Your task to perform on an android device: check battery use Image 0: 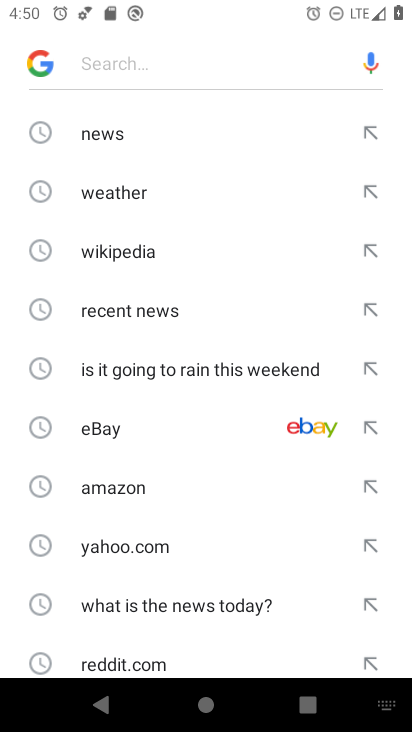
Step 0: press home button
Your task to perform on an android device: check battery use Image 1: 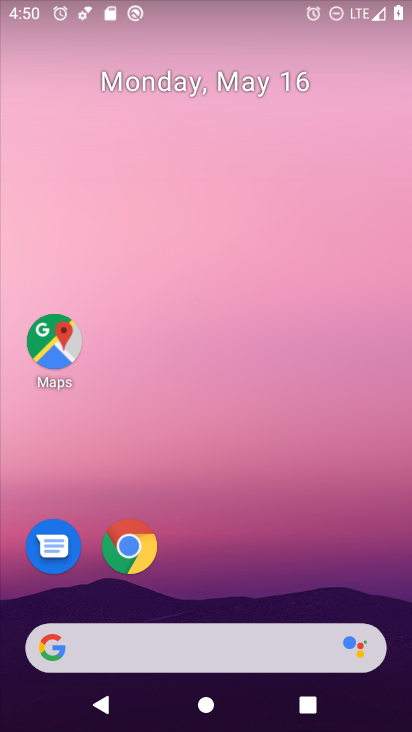
Step 1: drag from (362, 515) to (354, 151)
Your task to perform on an android device: check battery use Image 2: 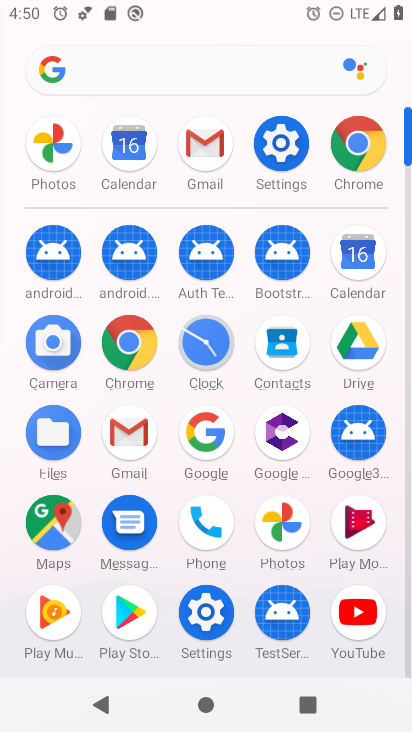
Step 2: click (289, 160)
Your task to perform on an android device: check battery use Image 3: 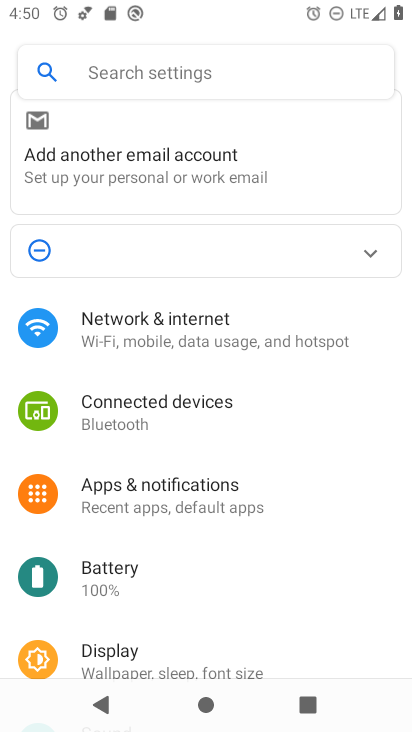
Step 3: drag from (323, 523) to (329, 358)
Your task to perform on an android device: check battery use Image 4: 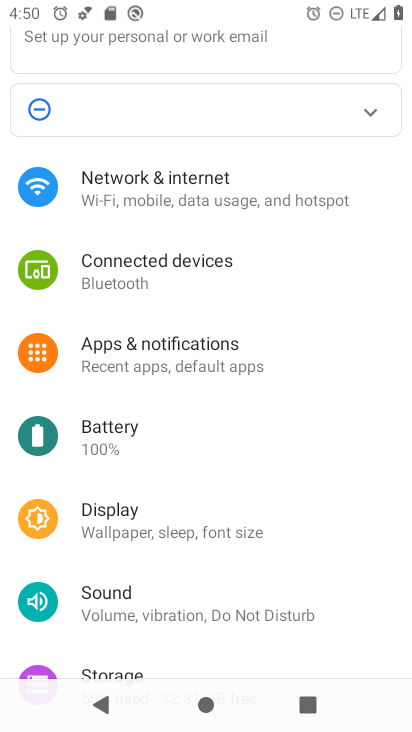
Step 4: drag from (341, 546) to (364, 354)
Your task to perform on an android device: check battery use Image 5: 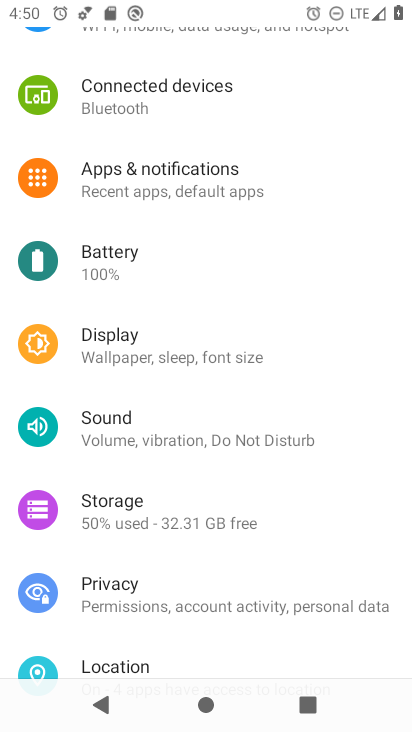
Step 5: drag from (360, 550) to (366, 365)
Your task to perform on an android device: check battery use Image 6: 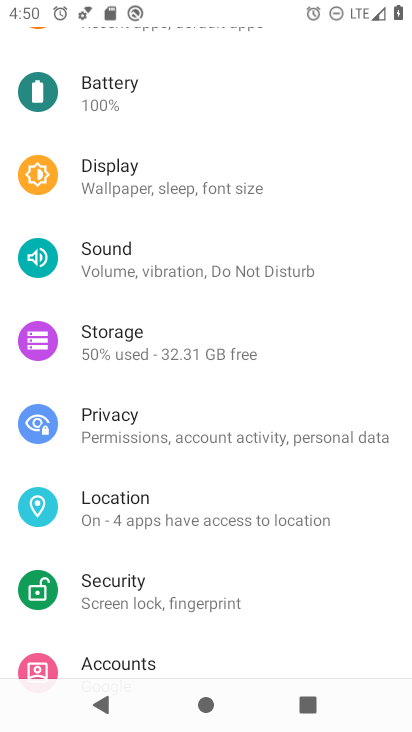
Step 6: drag from (339, 595) to (341, 448)
Your task to perform on an android device: check battery use Image 7: 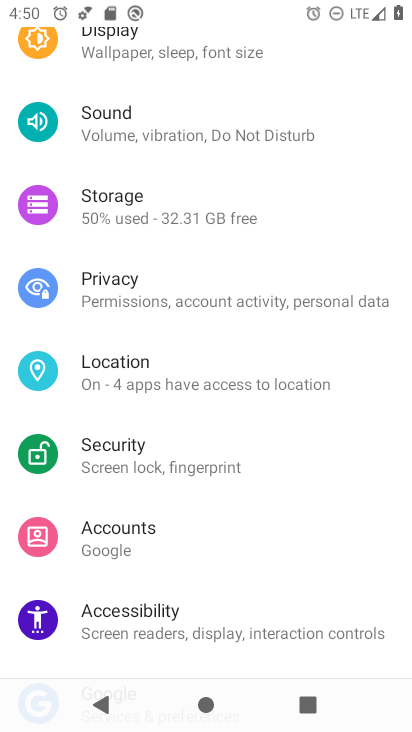
Step 7: drag from (358, 656) to (367, 459)
Your task to perform on an android device: check battery use Image 8: 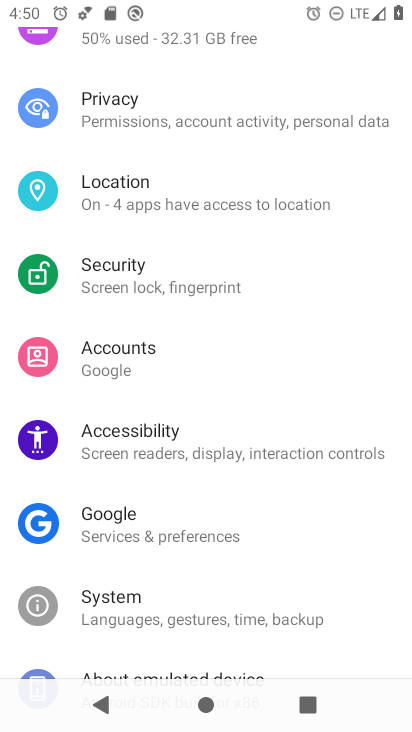
Step 8: drag from (358, 636) to (363, 441)
Your task to perform on an android device: check battery use Image 9: 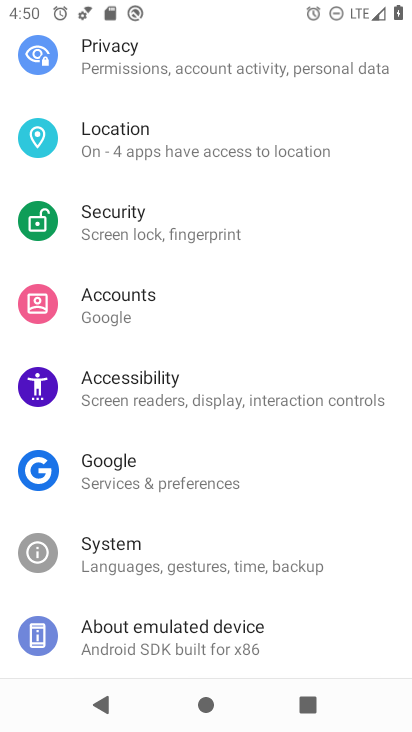
Step 9: drag from (364, 440) to (351, 536)
Your task to perform on an android device: check battery use Image 10: 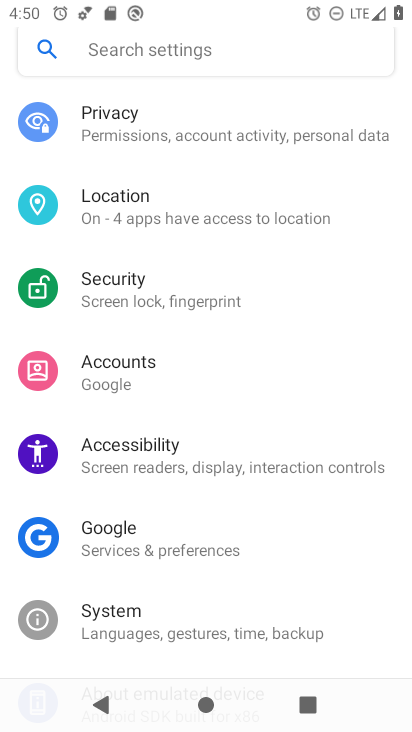
Step 10: drag from (343, 413) to (347, 562)
Your task to perform on an android device: check battery use Image 11: 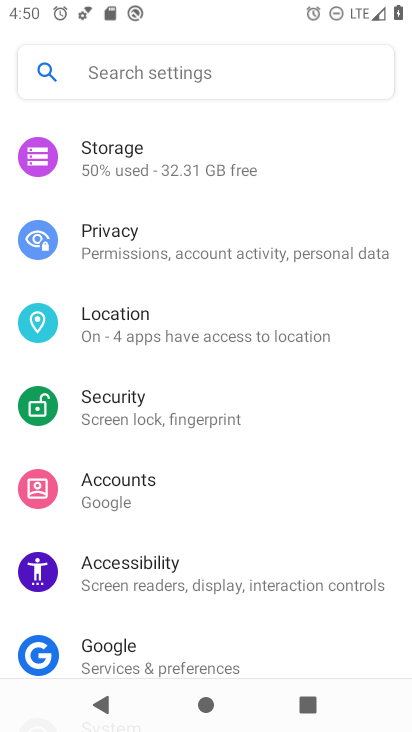
Step 11: drag from (350, 387) to (331, 515)
Your task to perform on an android device: check battery use Image 12: 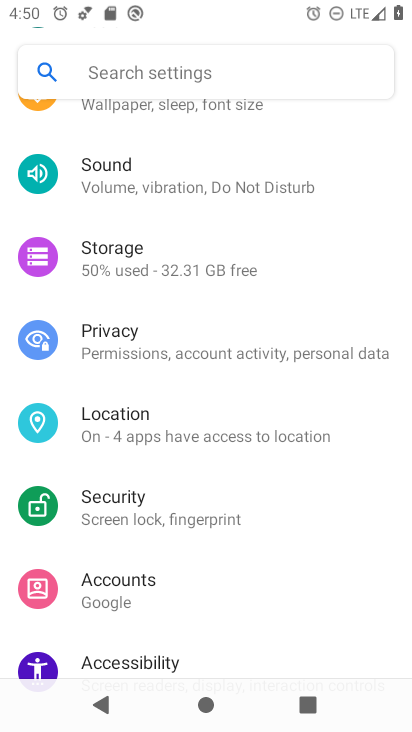
Step 12: drag from (329, 386) to (360, 514)
Your task to perform on an android device: check battery use Image 13: 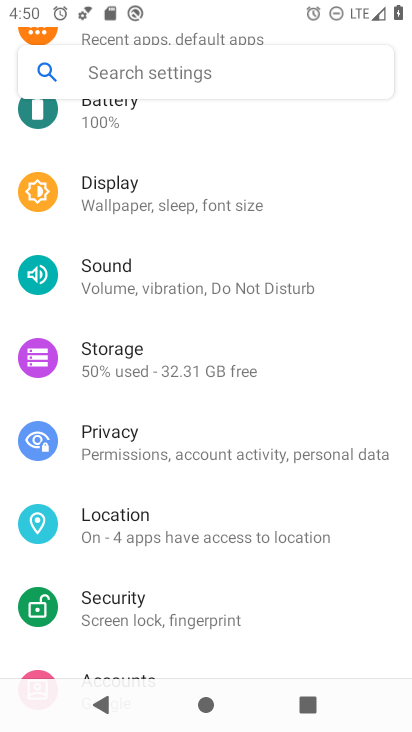
Step 13: drag from (352, 381) to (342, 491)
Your task to perform on an android device: check battery use Image 14: 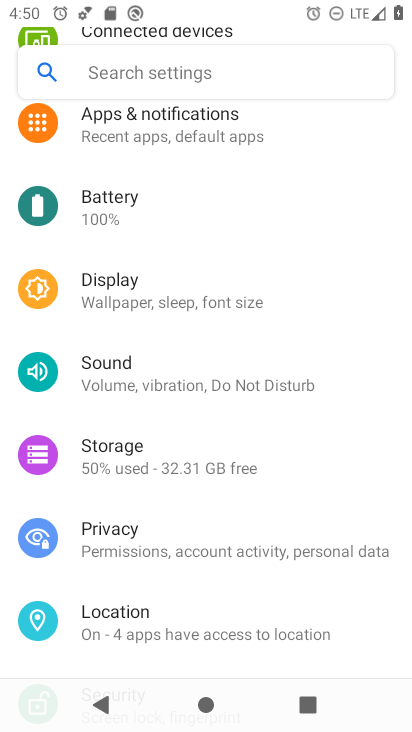
Step 14: drag from (330, 349) to (314, 481)
Your task to perform on an android device: check battery use Image 15: 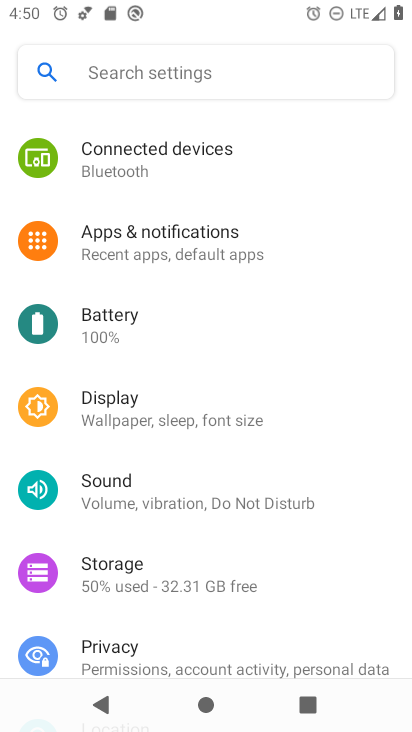
Step 15: drag from (324, 358) to (329, 469)
Your task to perform on an android device: check battery use Image 16: 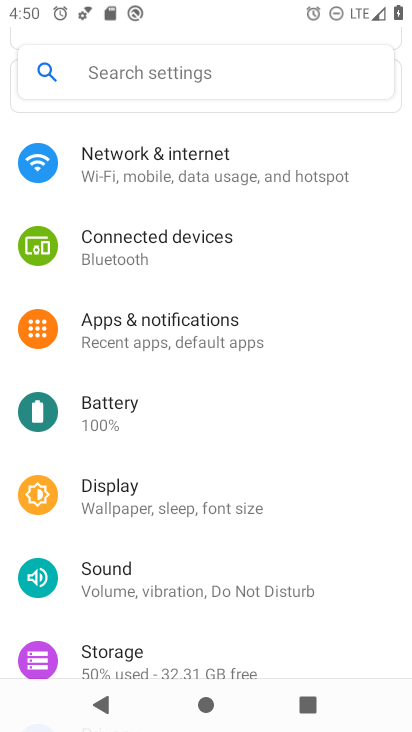
Step 16: click (120, 415)
Your task to perform on an android device: check battery use Image 17: 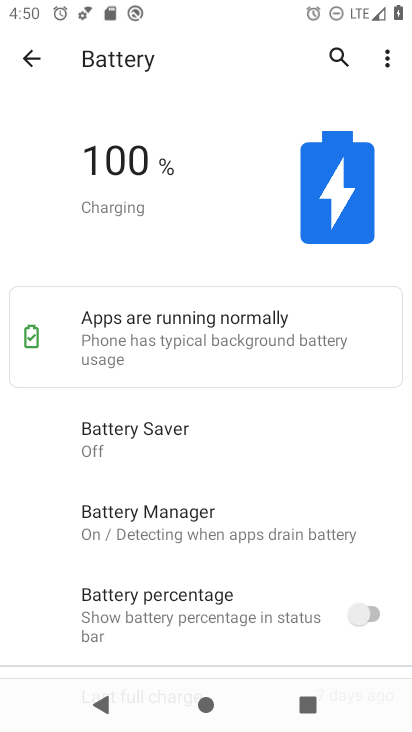
Step 17: click (388, 62)
Your task to perform on an android device: check battery use Image 18: 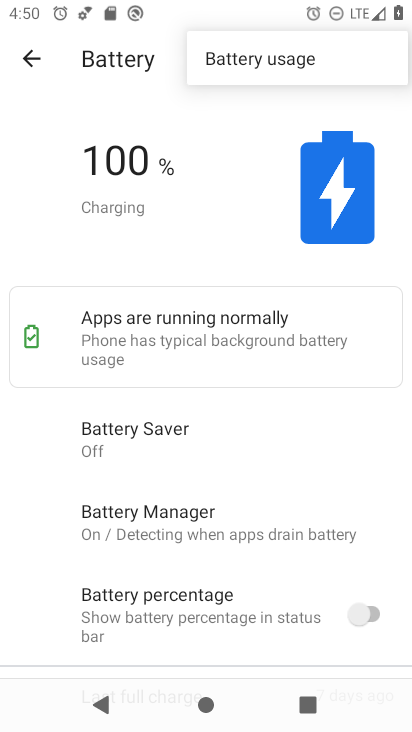
Step 18: click (323, 61)
Your task to perform on an android device: check battery use Image 19: 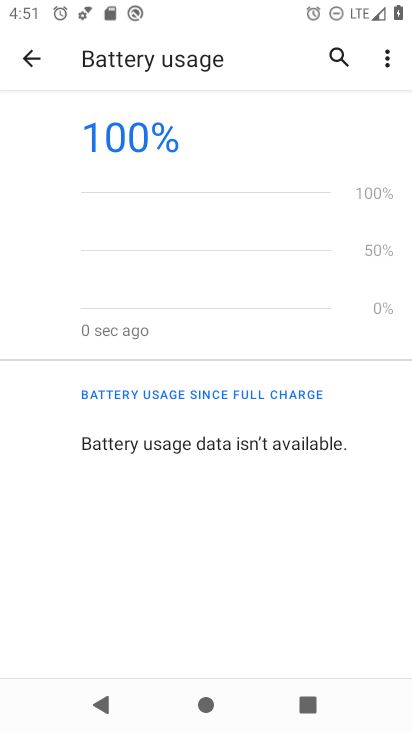
Step 19: task complete